Your task to perform on an android device: turn on priority inbox in the gmail app Image 0: 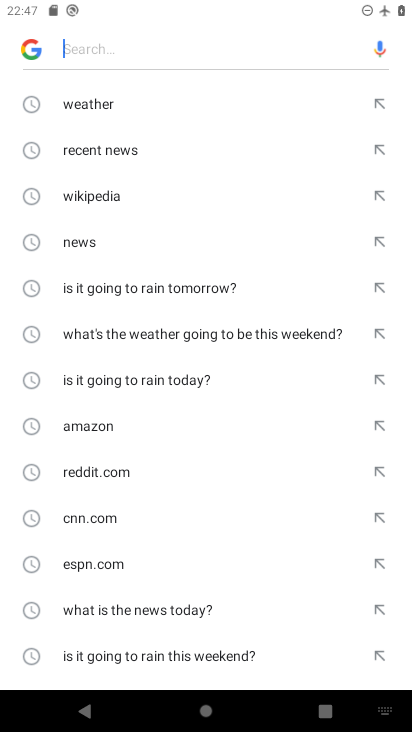
Step 0: press home button
Your task to perform on an android device: turn on priority inbox in the gmail app Image 1: 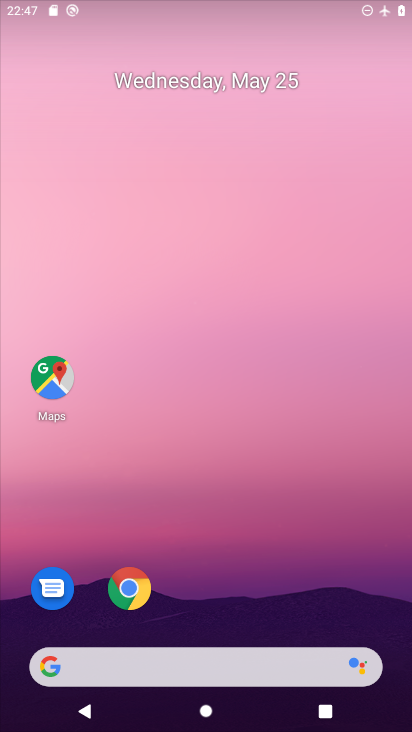
Step 1: drag from (266, 360) to (257, 88)
Your task to perform on an android device: turn on priority inbox in the gmail app Image 2: 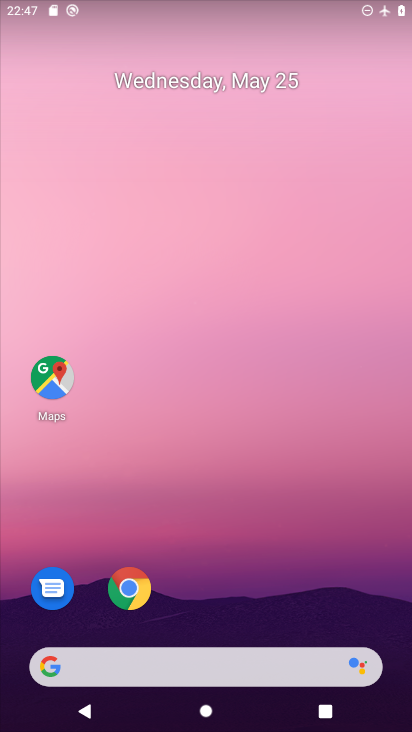
Step 2: drag from (242, 542) to (224, 123)
Your task to perform on an android device: turn on priority inbox in the gmail app Image 3: 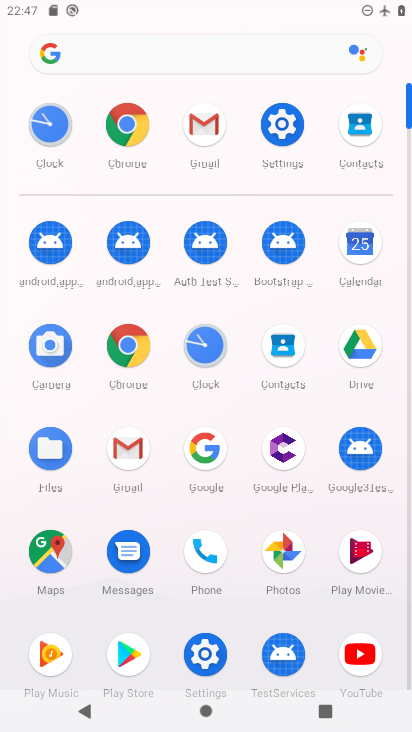
Step 3: click (134, 466)
Your task to perform on an android device: turn on priority inbox in the gmail app Image 4: 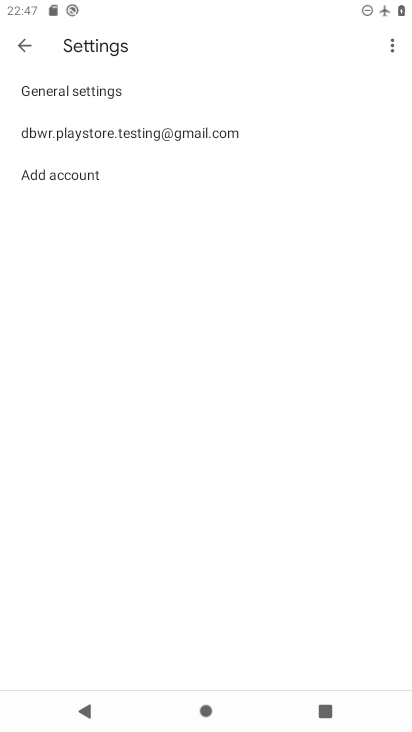
Step 4: click (170, 142)
Your task to perform on an android device: turn on priority inbox in the gmail app Image 5: 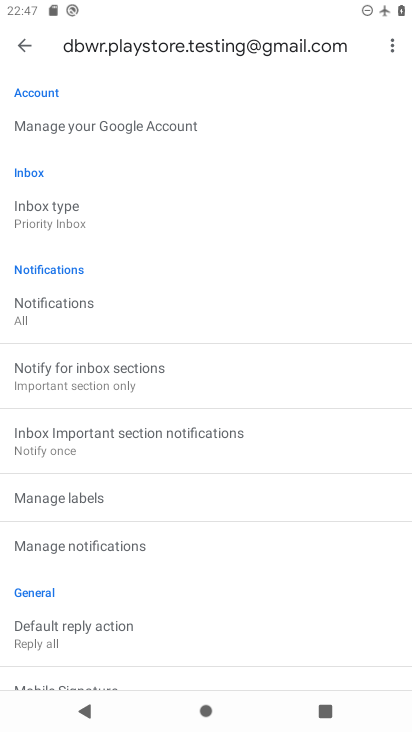
Step 5: click (82, 206)
Your task to perform on an android device: turn on priority inbox in the gmail app Image 6: 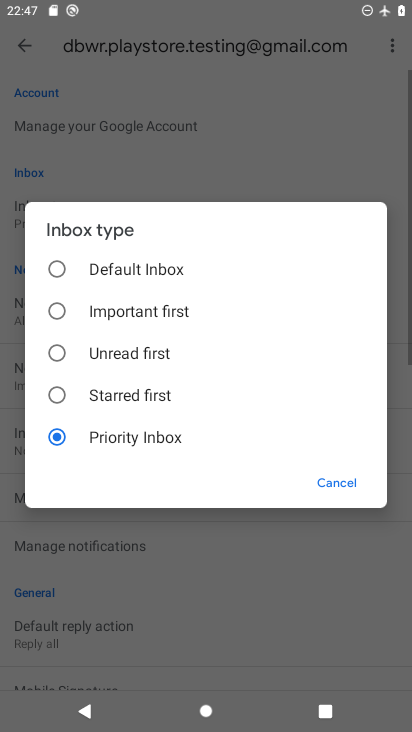
Step 6: task complete